Your task to perform on an android device: Open location settings Image 0: 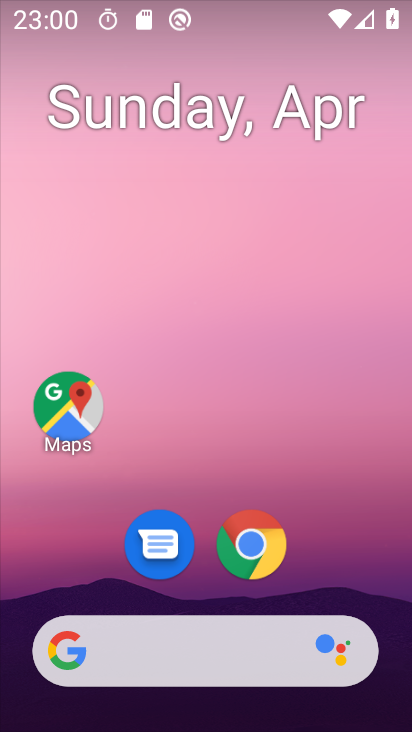
Step 0: drag from (331, 378) to (331, 255)
Your task to perform on an android device: Open location settings Image 1: 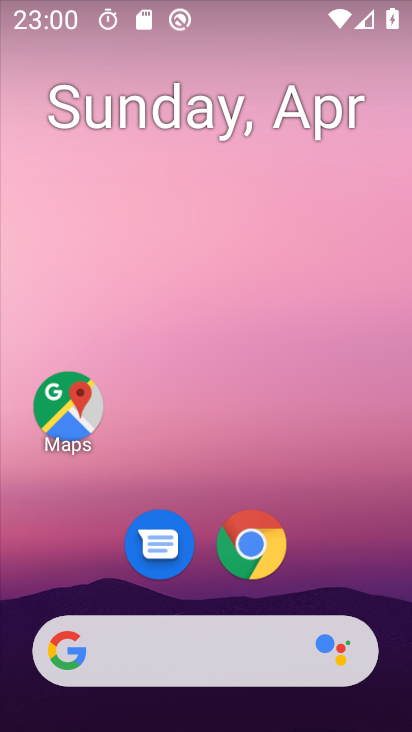
Step 1: drag from (313, 357) to (313, 294)
Your task to perform on an android device: Open location settings Image 2: 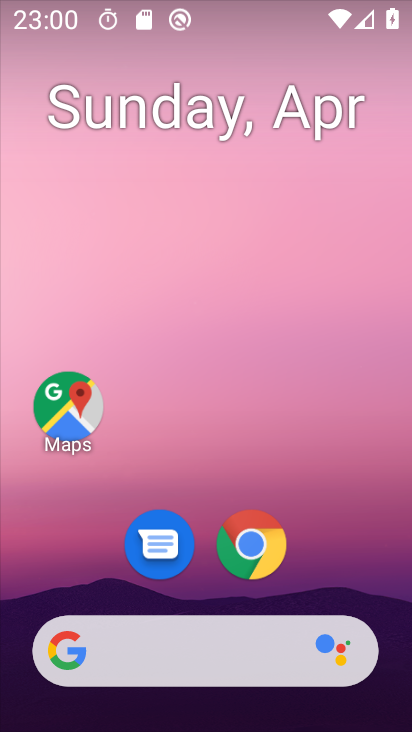
Step 2: drag from (341, 498) to (332, 280)
Your task to perform on an android device: Open location settings Image 3: 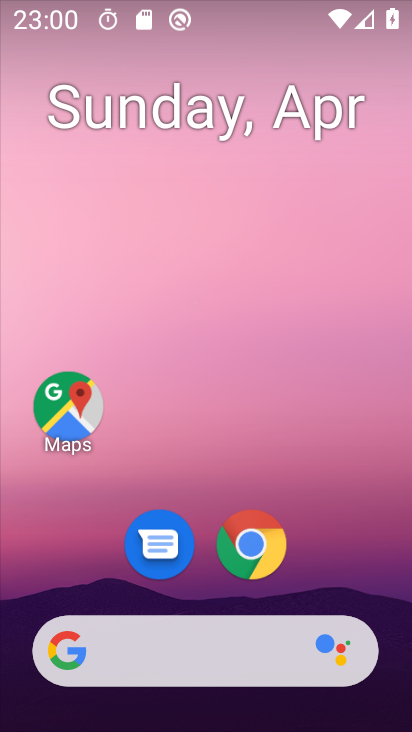
Step 3: drag from (316, 554) to (307, 153)
Your task to perform on an android device: Open location settings Image 4: 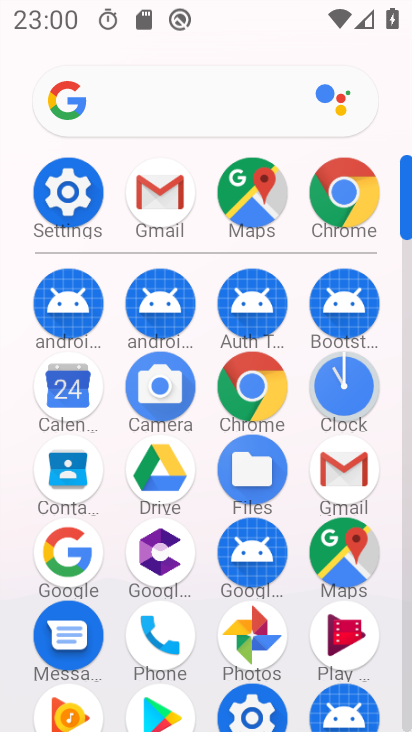
Step 4: click (62, 195)
Your task to perform on an android device: Open location settings Image 5: 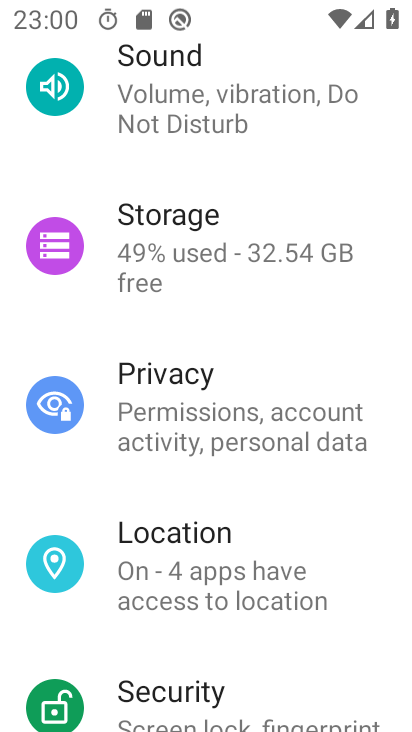
Step 5: click (171, 539)
Your task to perform on an android device: Open location settings Image 6: 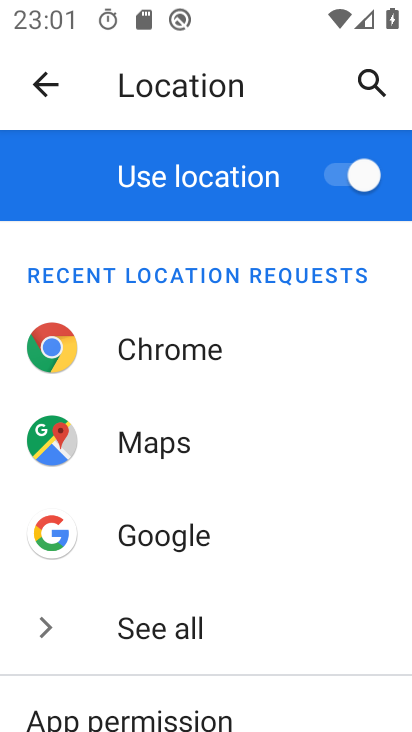
Step 6: task complete